Your task to perform on an android device: snooze an email in the gmail app Image 0: 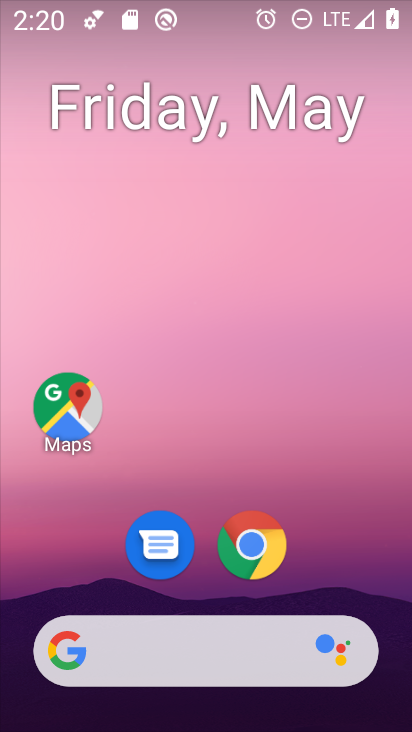
Step 0: drag from (316, 573) to (300, 246)
Your task to perform on an android device: snooze an email in the gmail app Image 1: 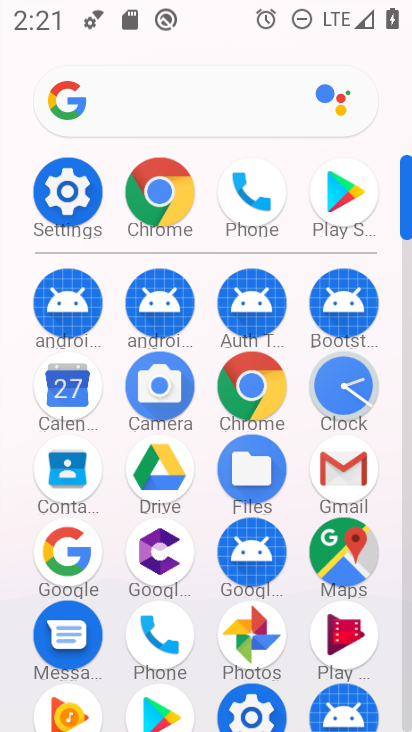
Step 1: click (325, 475)
Your task to perform on an android device: snooze an email in the gmail app Image 2: 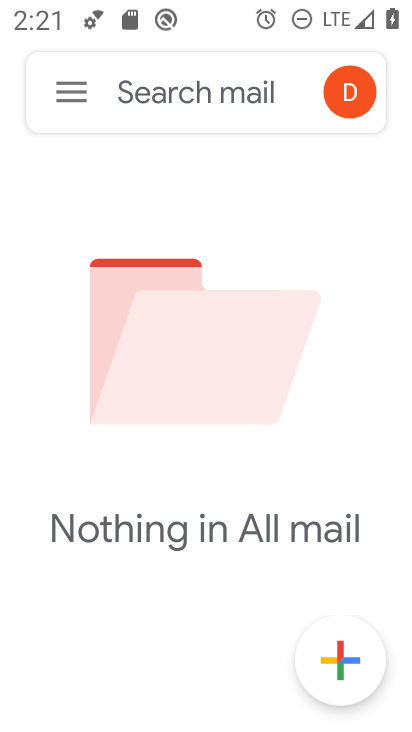
Step 2: click (85, 82)
Your task to perform on an android device: snooze an email in the gmail app Image 3: 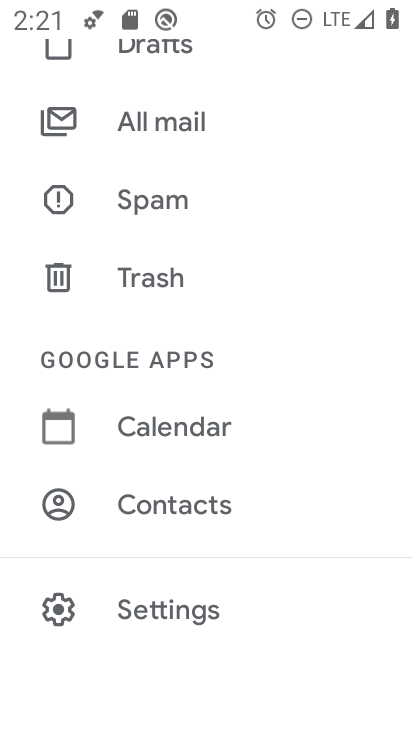
Step 3: drag from (211, 207) to (214, 618)
Your task to perform on an android device: snooze an email in the gmail app Image 4: 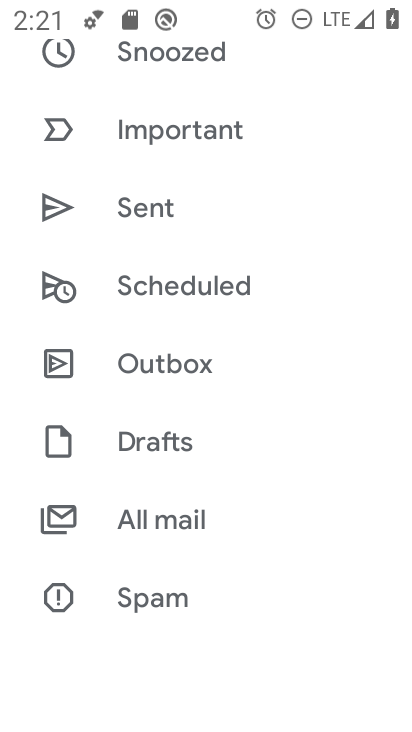
Step 4: drag from (184, 289) to (196, 476)
Your task to perform on an android device: snooze an email in the gmail app Image 5: 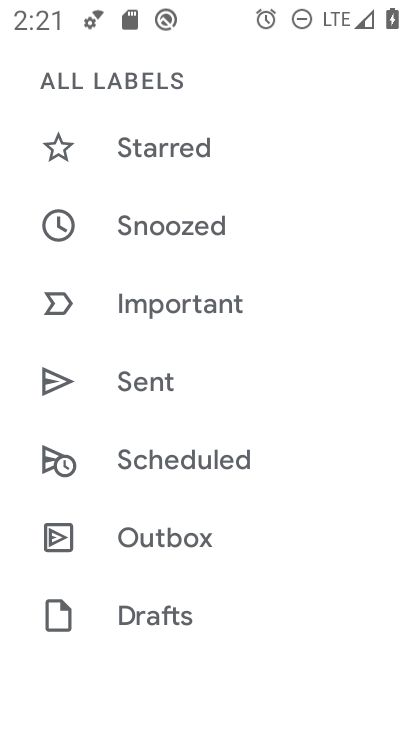
Step 5: click (162, 215)
Your task to perform on an android device: snooze an email in the gmail app Image 6: 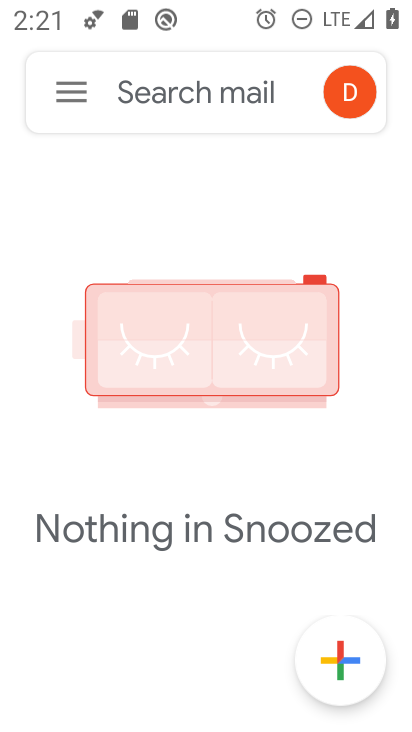
Step 6: task complete